Your task to perform on an android device: open chrome and create a bookmark for the current page Image 0: 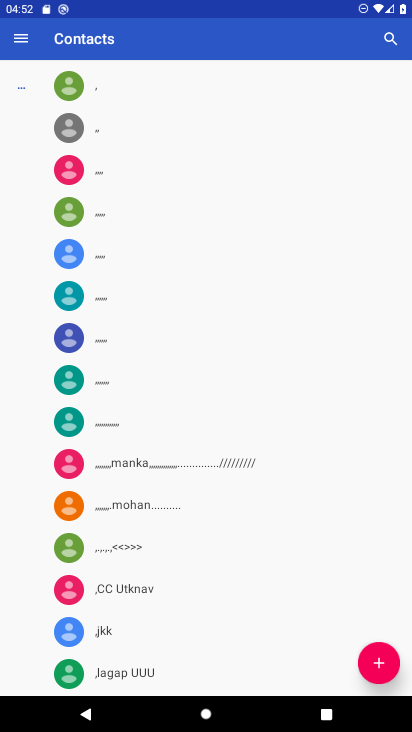
Step 0: press home button
Your task to perform on an android device: open chrome and create a bookmark for the current page Image 1: 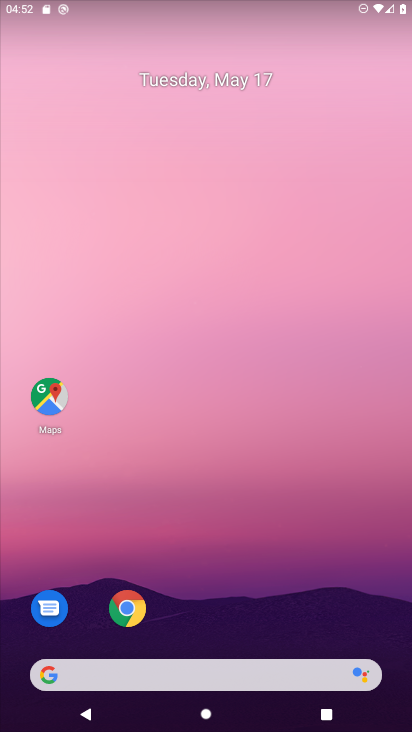
Step 1: click (112, 602)
Your task to perform on an android device: open chrome and create a bookmark for the current page Image 2: 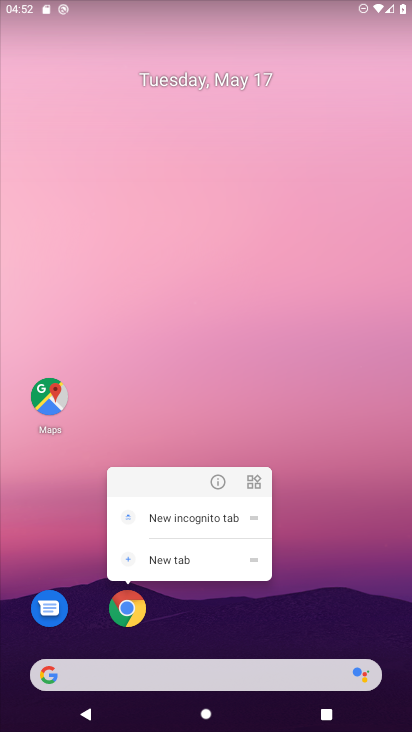
Step 2: click (123, 613)
Your task to perform on an android device: open chrome and create a bookmark for the current page Image 3: 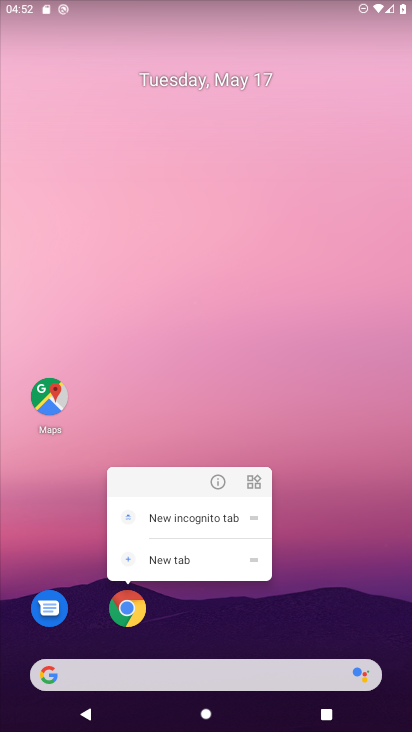
Step 3: click (123, 613)
Your task to perform on an android device: open chrome and create a bookmark for the current page Image 4: 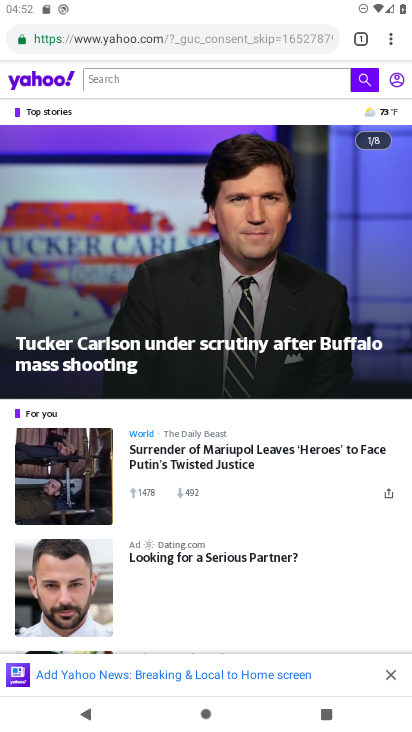
Step 4: click (384, 37)
Your task to perform on an android device: open chrome and create a bookmark for the current page Image 5: 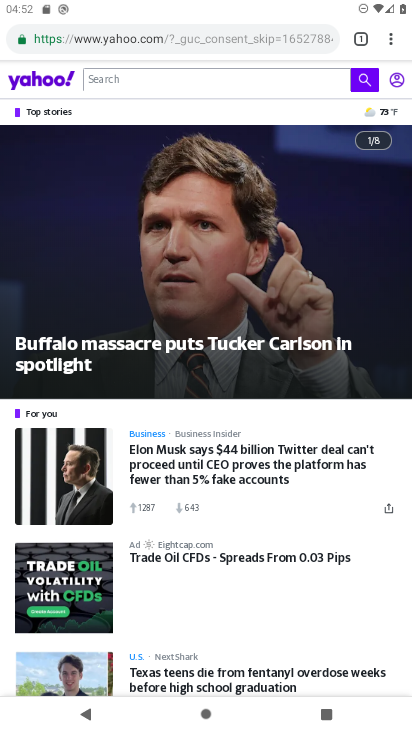
Step 5: click (394, 38)
Your task to perform on an android device: open chrome and create a bookmark for the current page Image 6: 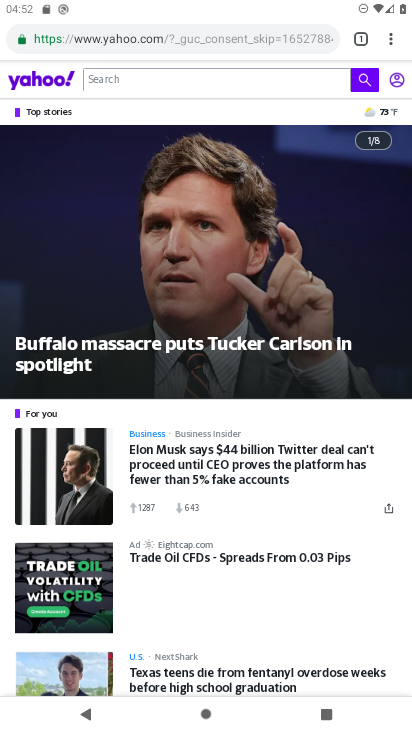
Step 6: click (394, 38)
Your task to perform on an android device: open chrome and create a bookmark for the current page Image 7: 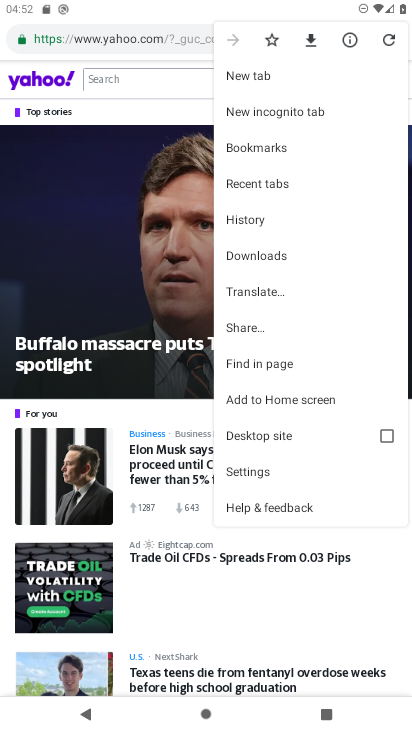
Step 7: click (272, 39)
Your task to perform on an android device: open chrome and create a bookmark for the current page Image 8: 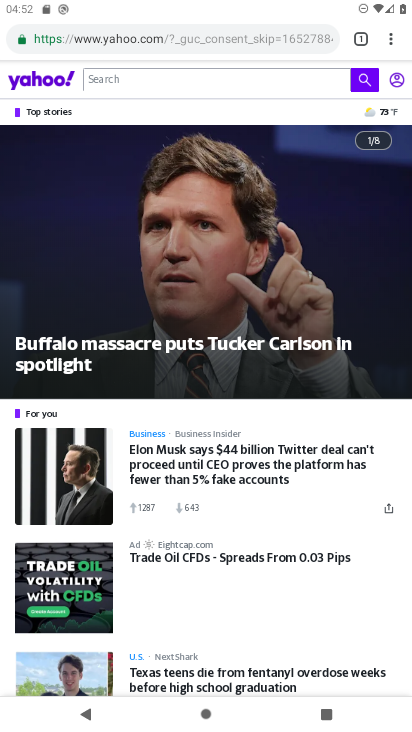
Step 8: task complete